Your task to perform on an android device: toggle translation in the chrome app Image 0: 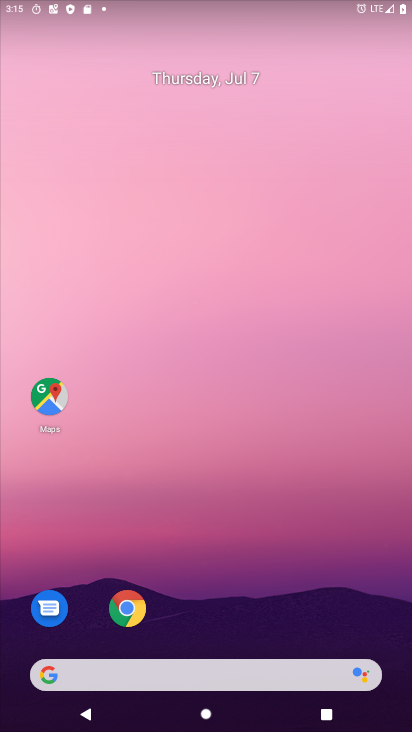
Step 0: click (130, 609)
Your task to perform on an android device: toggle translation in the chrome app Image 1: 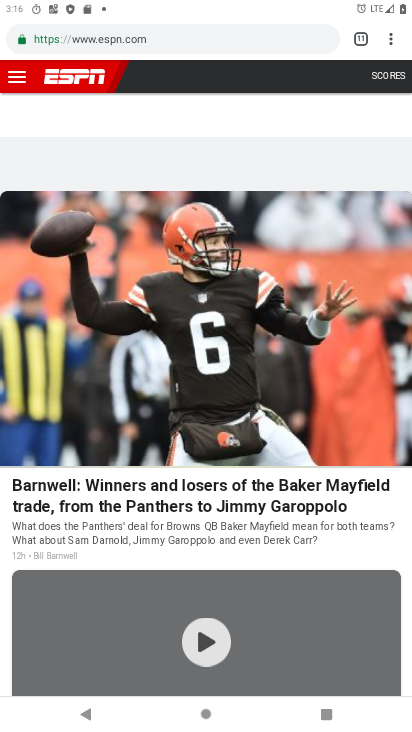
Step 1: click (390, 37)
Your task to perform on an android device: toggle translation in the chrome app Image 2: 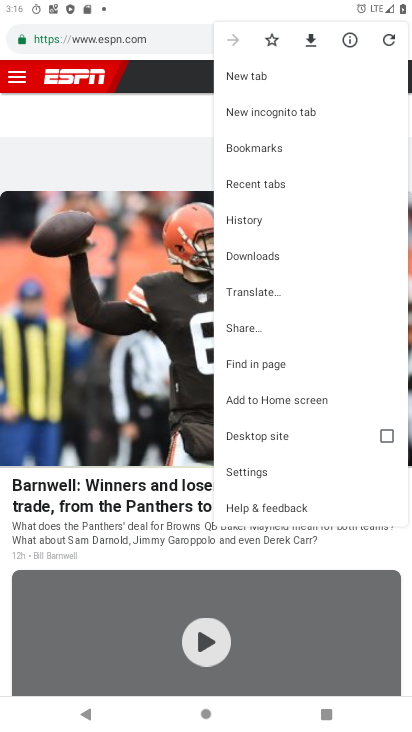
Step 2: click (243, 469)
Your task to perform on an android device: toggle translation in the chrome app Image 3: 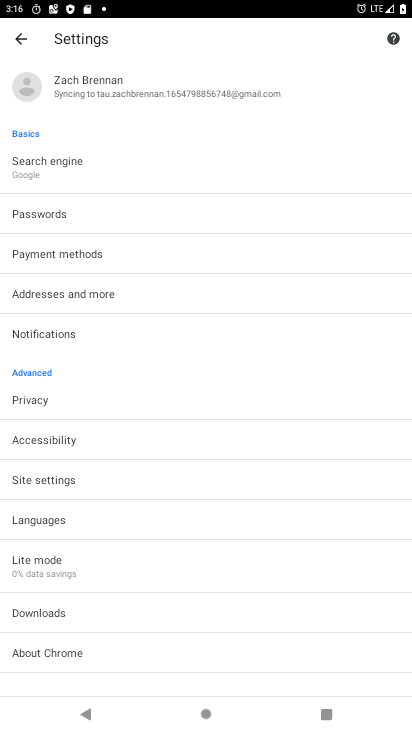
Step 3: click (43, 520)
Your task to perform on an android device: toggle translation in the chrome app Image 4: 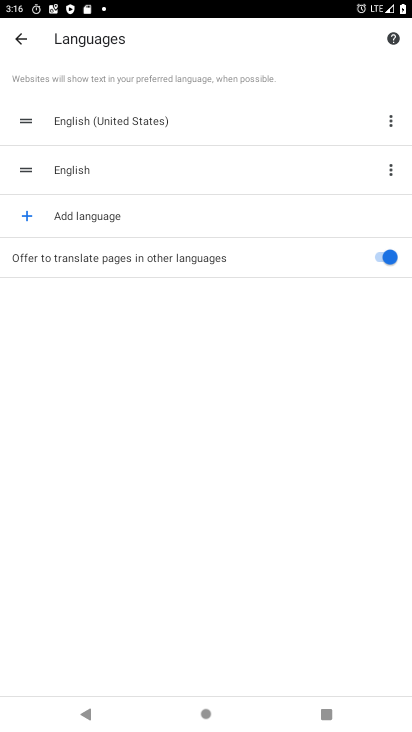
Step 4: click (384, 257)
Your task to perform on an android device: toggle translation in the chrome app Image 5: 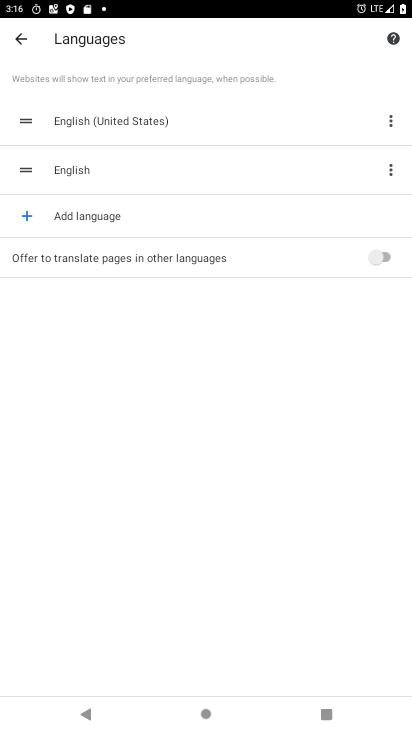
Step 5: task complete